Your task to perform on an android device: Open display settings Image 0: 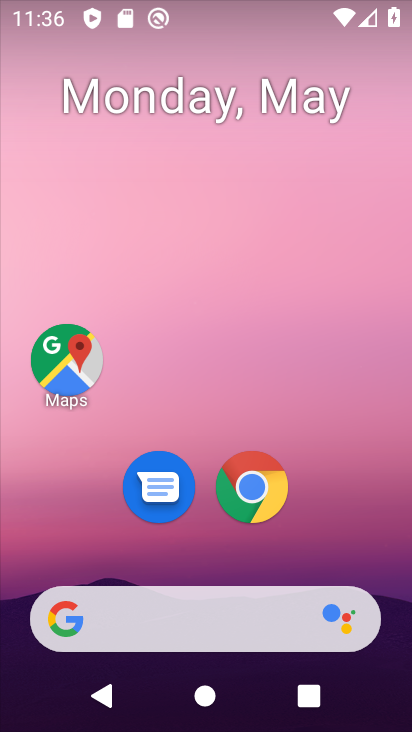
Step 0: drag from (22, 575) to (234, 188)
Your task to perform on an android device: Open display settings Image 1: 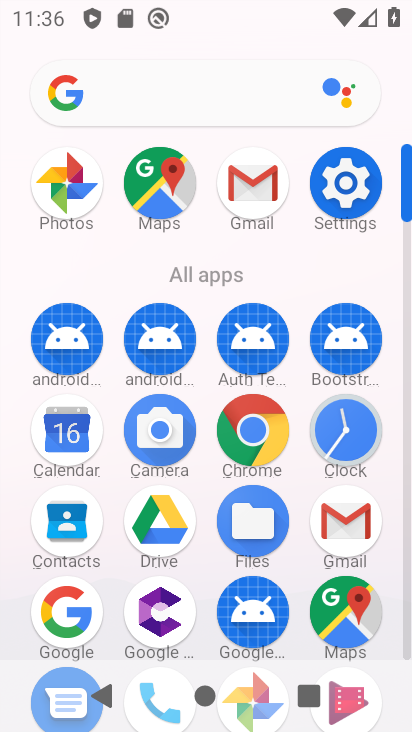
Step 1: click (348, 184)
Your task to perform on an android device: Open display settings Image 2: 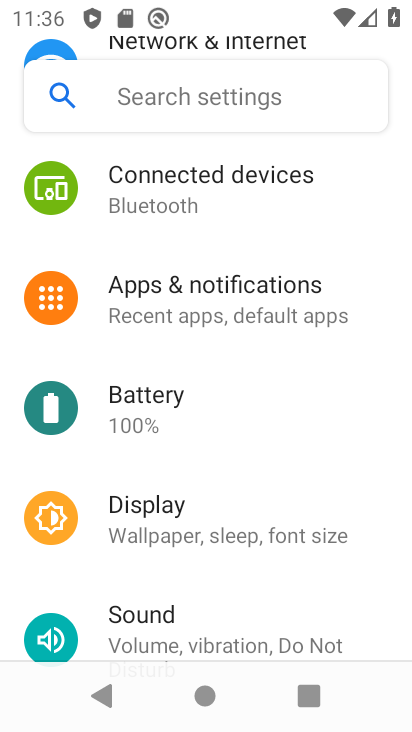
Step 2: click (130, 522)
Your task to perform on an android device: Open display settings Image 3: 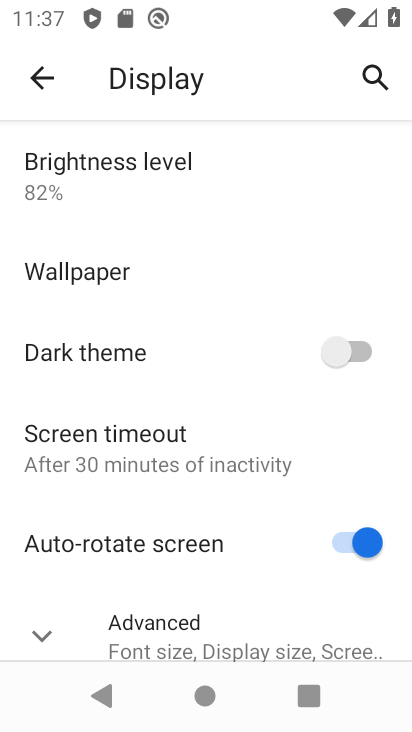
Step 3: task complete